Your task to perform on an android device: toggle priority inbox in the gmail app Image 0: 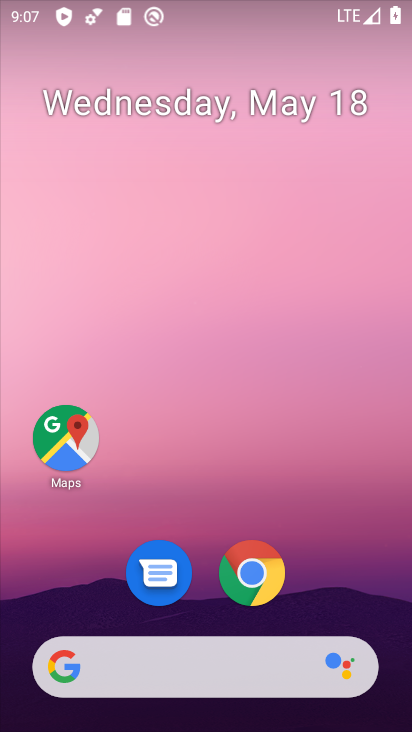
Step 0: drag from (222, 723) to (137, 64)
Your task to perform on an android device: toggle priority inbox in the gmail app Image 1: 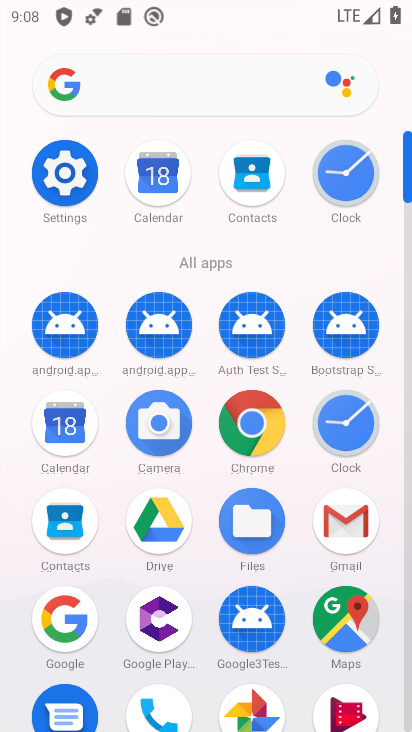
Step 1: click (75, 180)
Your task to perform on an android device: toggle priority inbox in the gmail app Image 2: 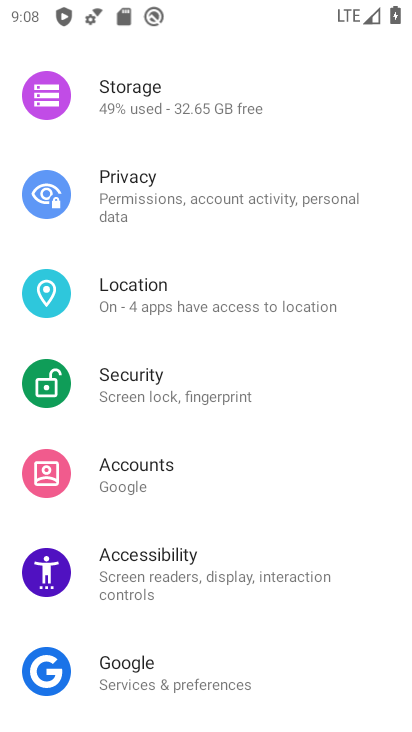
Step 2: drag from (315, 681) to (297, 65)
Your task to perform on an android device: toggle priority inbox in the gmail app Image 3: 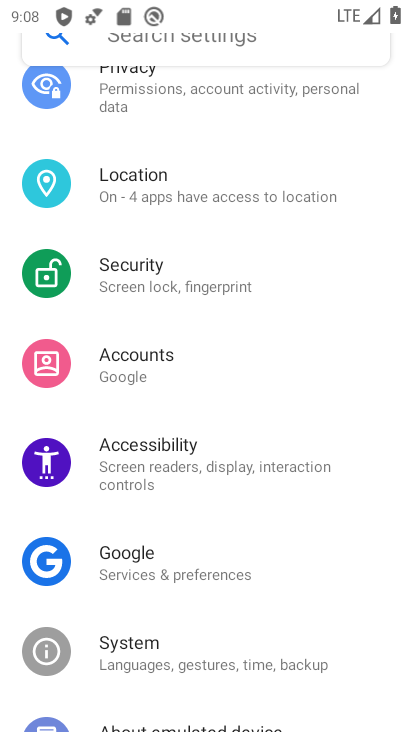
Step 3: drag from (269, 638) to (275, 95)
Your task to perform on an android device: toggle priority inbox in the gmail app Image 4: 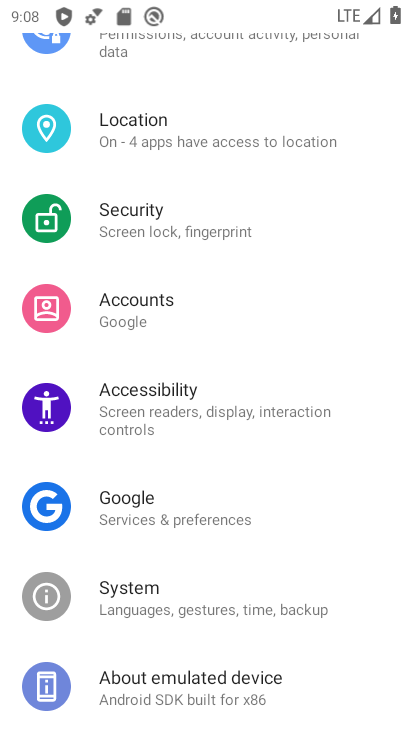
Step 4: press home button
Your task to perform on an android device: toggle priority inbox in the gmail app Image 5: 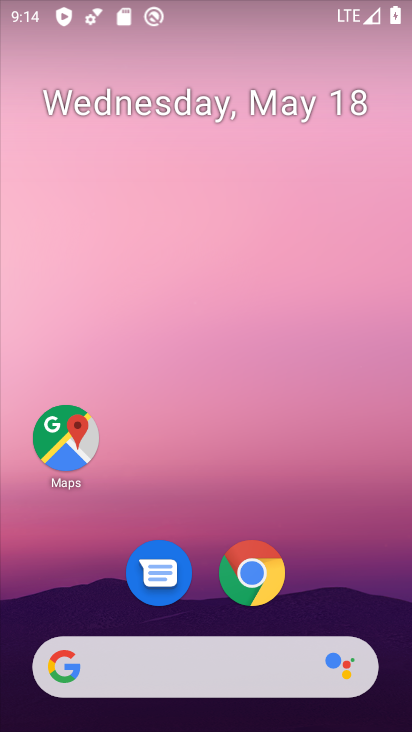
Step 5: drag from (261, 649) to (327, 115)
Your task to perform on an android device: toggle priority inbox in the gmail app Image 6: 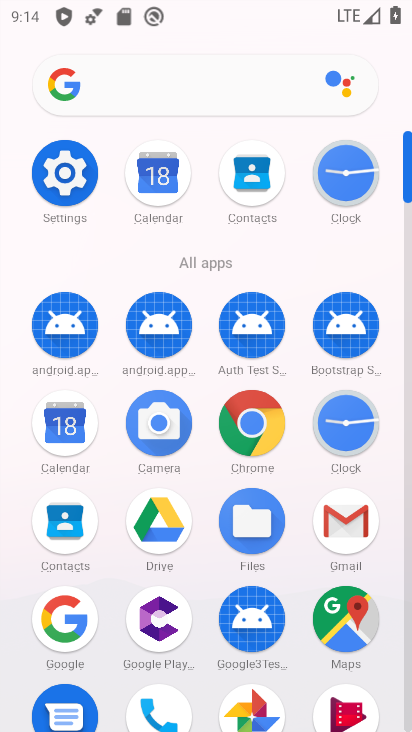
Step 6: click (348, 517)
Your task to perform on an android device: toggle priority inbox in the gmail app Image 7: 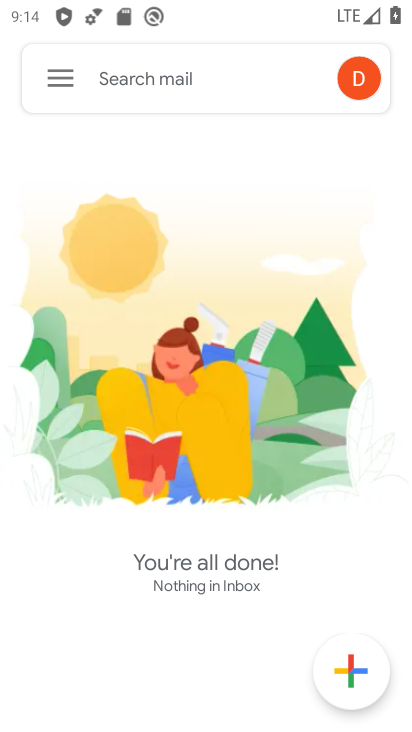
Step 7: click (54, 76)
Your task to perform on an android device: toggle priority inbox in the gmail app Image 8: 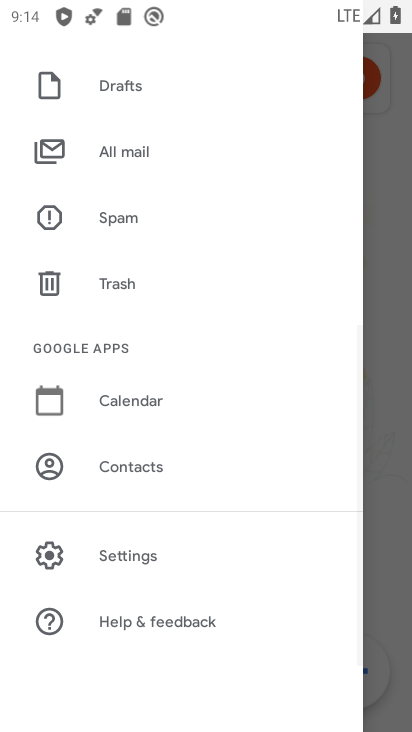
Step 8: click (146, 563)
Your task to perform on an android device: toggle priority inbox in the gmail app Image 9: 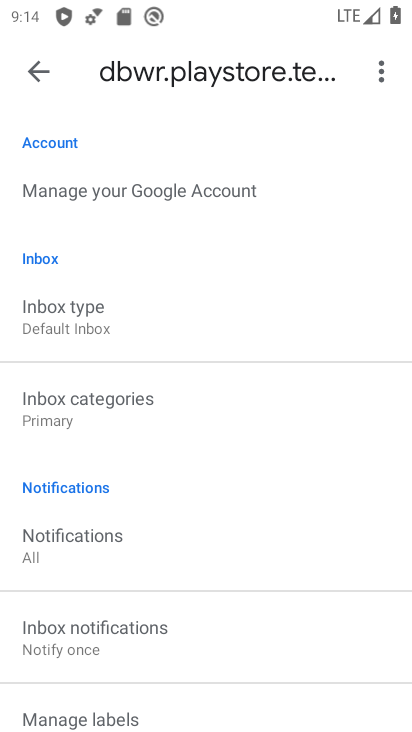
Step 9: click (93, 307)
Your task to perform on an android device: toggle priority inbox in the gmail app Image 10: 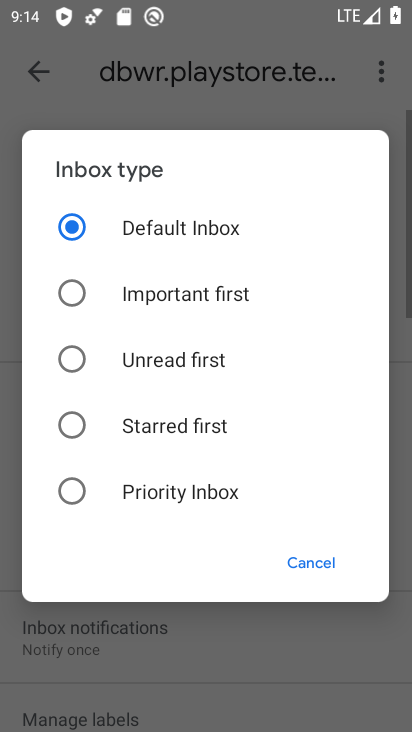
Step 10: click (210, 483)
Your task to perform on an android device: toggle priority inbox in the gmail app Image 11: 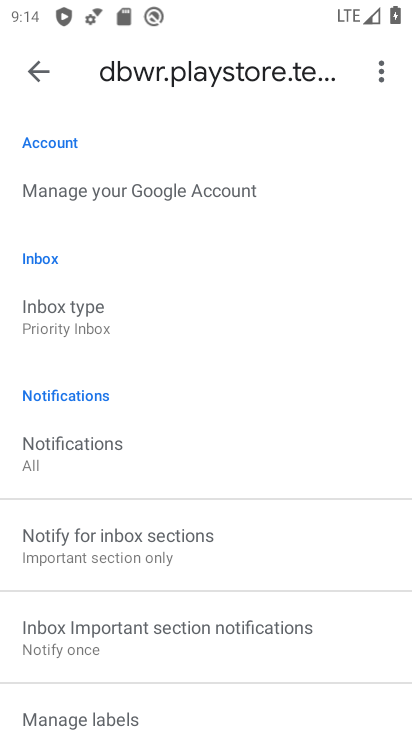
Step 11: task complete